Your task to perform on an android device: toggle pop-ups in chrome Image 0: 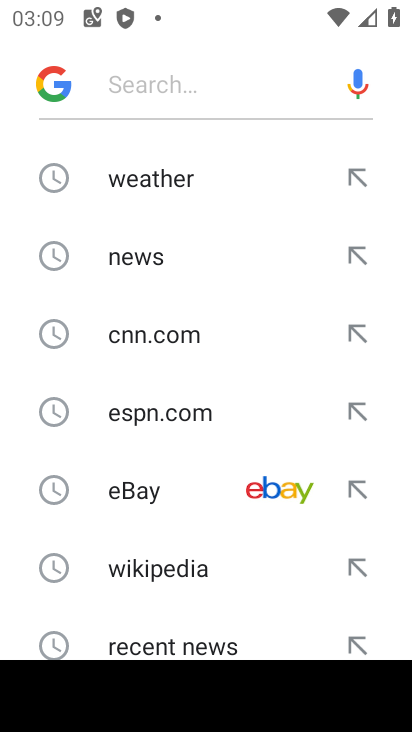
Step 0: press home button
Your task to perform on an android device: toggle pop-ups in chrome Image 1: 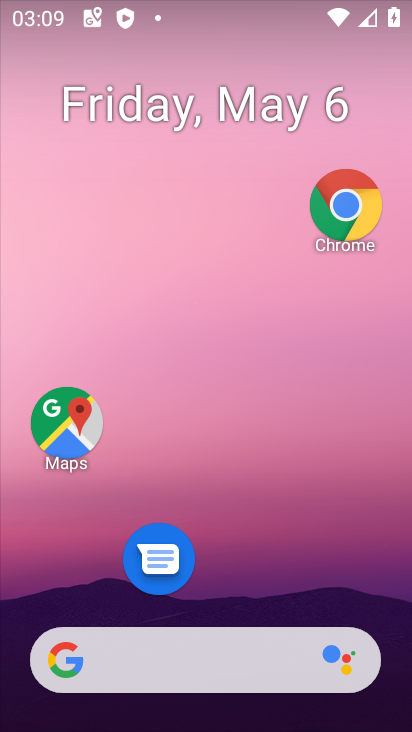
Step 1: click (343, 216)
Your task to perform on an android device: toggle pop-ups in chrome Image 2: 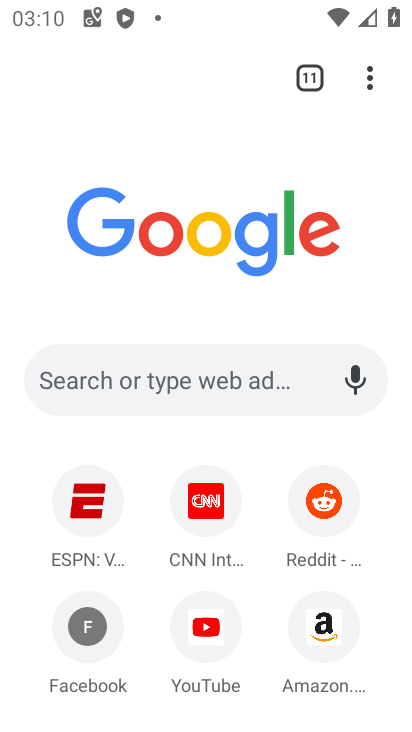
Step 2: drag from (368, 81) to (119, 641)
Your task to perform on an android device: toggle pop-ups in chrome Image 3: 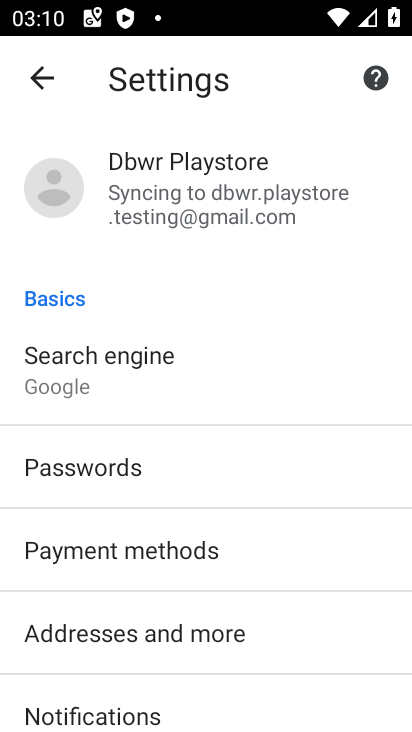
Step 3: drag from (194, 668) to (410, 86)
Your task to perform on an android device: toggle pop-ups in chrome Image 4: 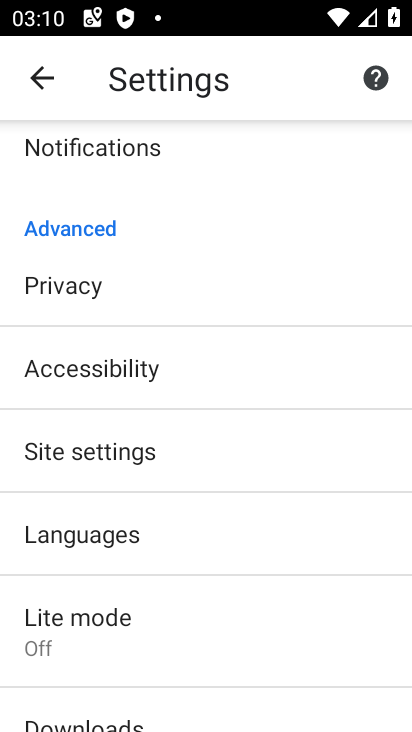
Step 4: click (161, 438)
Your task to perform on an android device: toggle pop-ups in chrome Image 5: 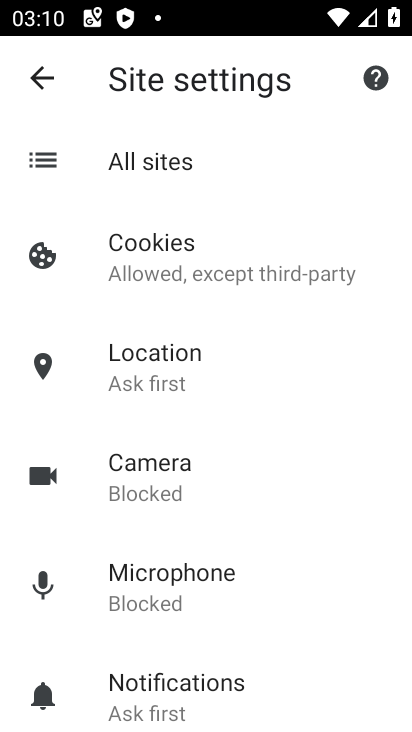
Step 5: drag from (213, 635) to (305, 197)
Your task to perform on an android device: toggle pop-ups in chrome Image 6: 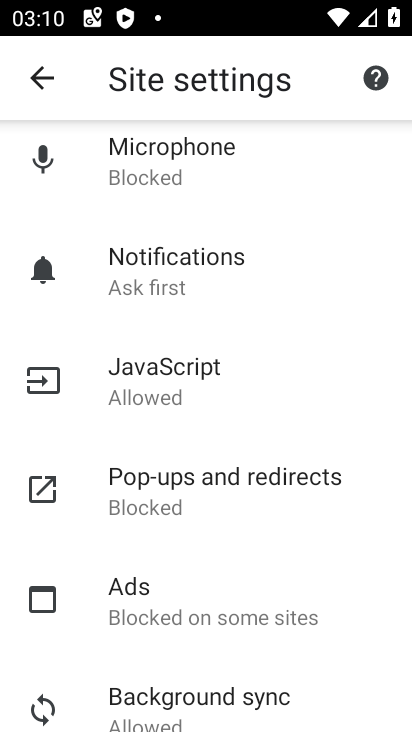
Step 6: click (166, 479)
Your task to perform on an android device: toggle pop-ups in chrome Image 7: 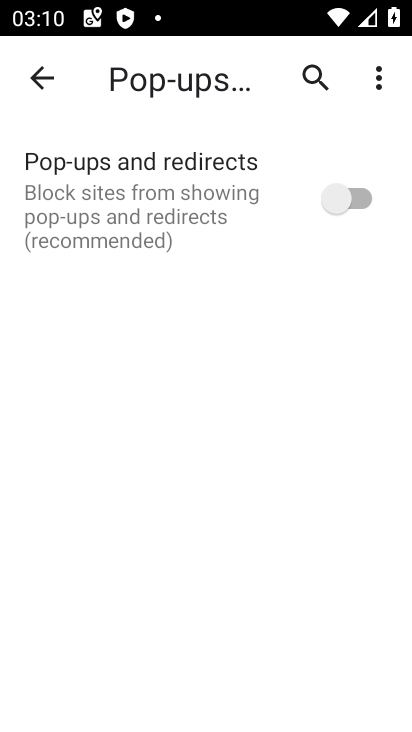
Step 7: click (358, 188)
Your task to perform on an android device: toggle pop-ups in chrome Image 8: 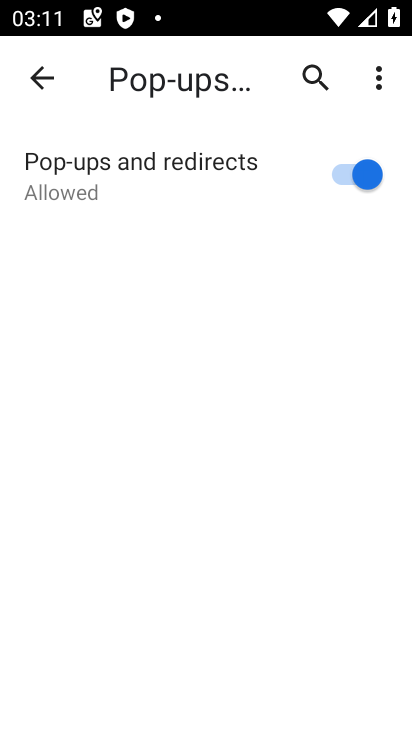
Step 8: task complete